Your task to perform on an android device: turn off wifi Image 0: 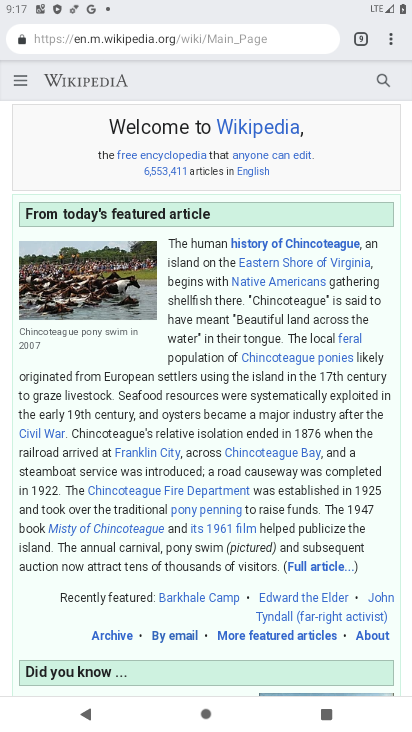
Step 0: press home button
Your task to perform on an android device: turn off wifi Image 1: 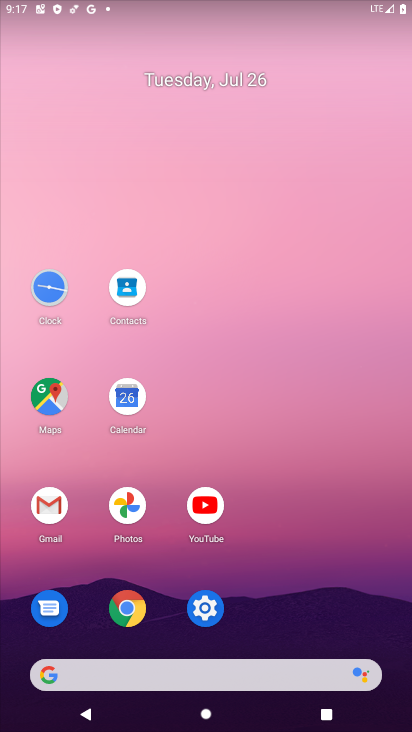
Step 1: click (205, 604)
Your task to perform on an android device: turn off wifi Image 2: 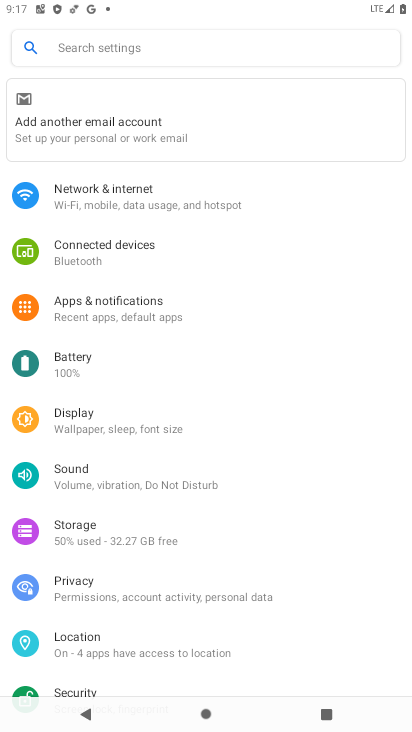
Step 2: click (121, 195)
Your task to perform on an android device: turn off wifi Image 3: 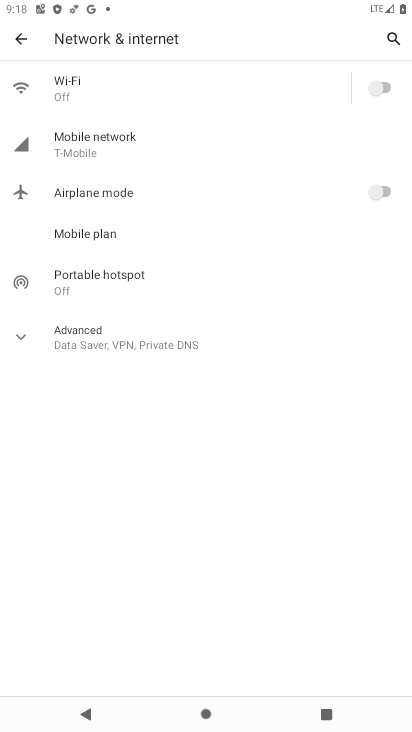
Step 3: task complete